Your task to perform on an android device: Open the calendar app, open the side menu, and click the "Day" option Image 0: 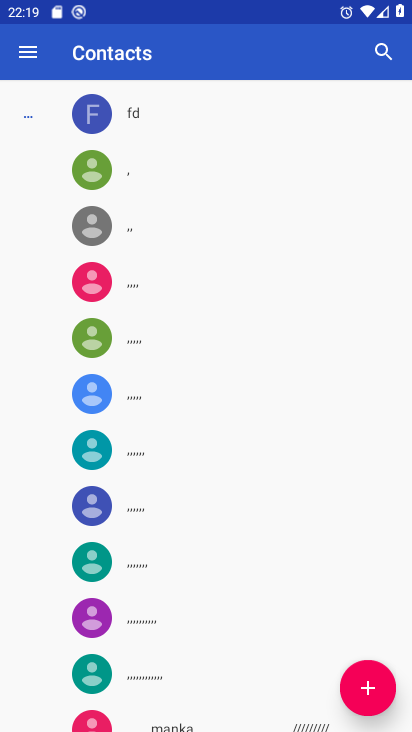
Step 0: press home button
Your task to perform on an android device: Open the calendar app, open the side menu, and click the "Day" option Image 1: 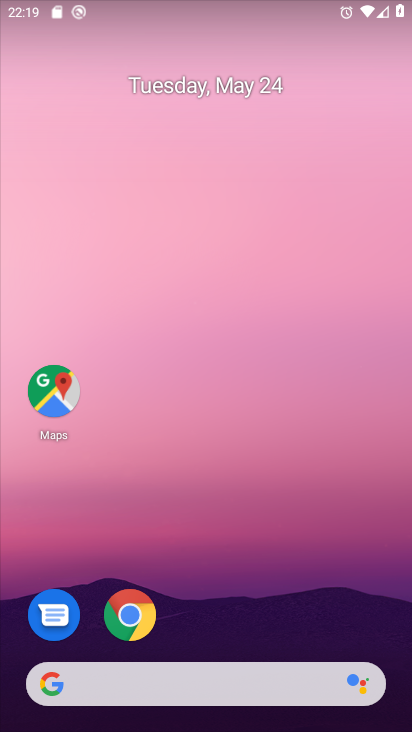
Step 1: click (203, 604)
Your task to perform on an android device: Open the calendar app, open the side menu, and click the "Day" option Image 2: 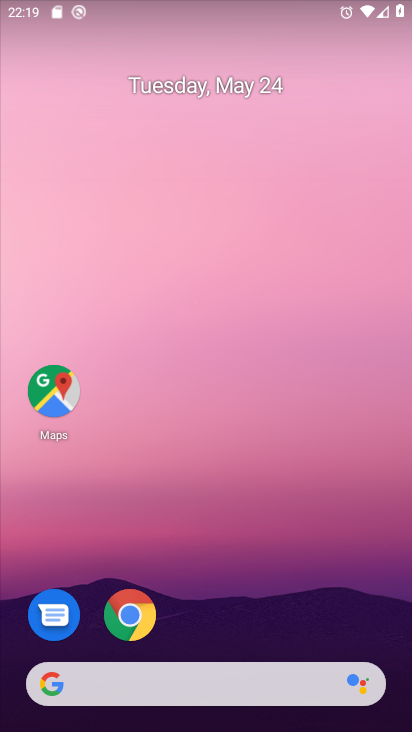
Step 2: drag from (273, 239) to (288, 15)
Your task to perform on an android device: Open the calendar app, open the side menu, and click the "Day" option Image 3: 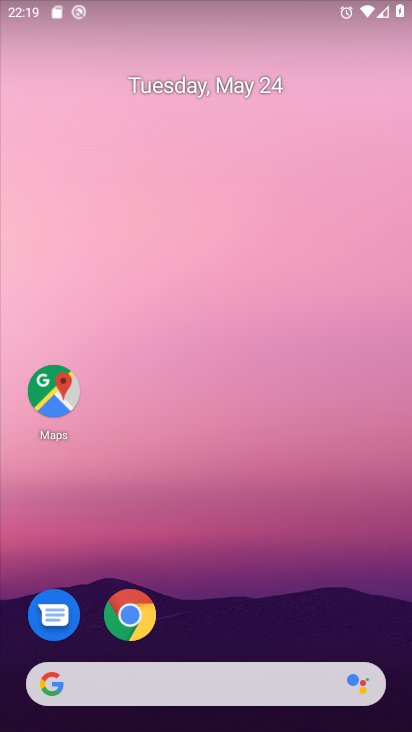
Step 3: drag from (177, 601) to (225, 178)
Your task to perform on an android device: Open the calendar app, open the side menu, and click the "Day" option Image 4: 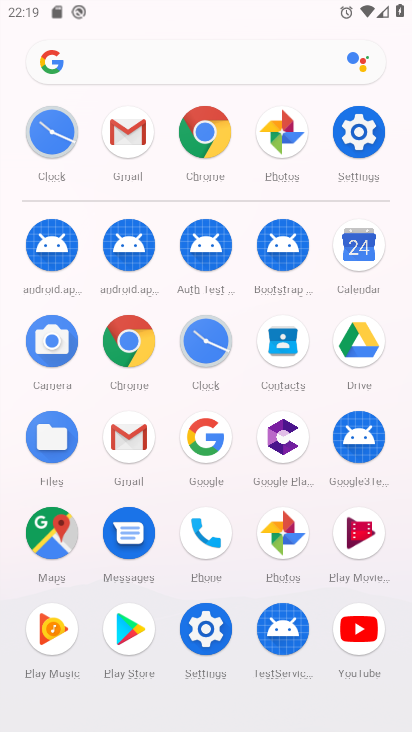
Step 4: click (343, 241)
Your task to perform on an android device: Open the calendar app, open the side menu, and click the "Day" option Image 5: 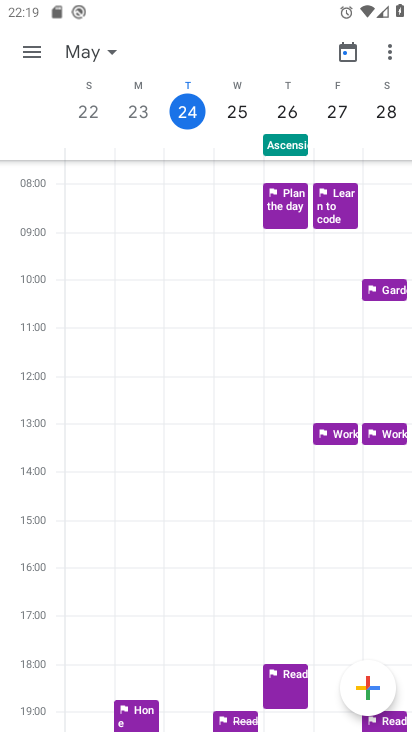
Step 5: click (21, 43)
Your task to perform on an android device: Open the calendar app, open the side menu, and click the "Day" option Image 6: 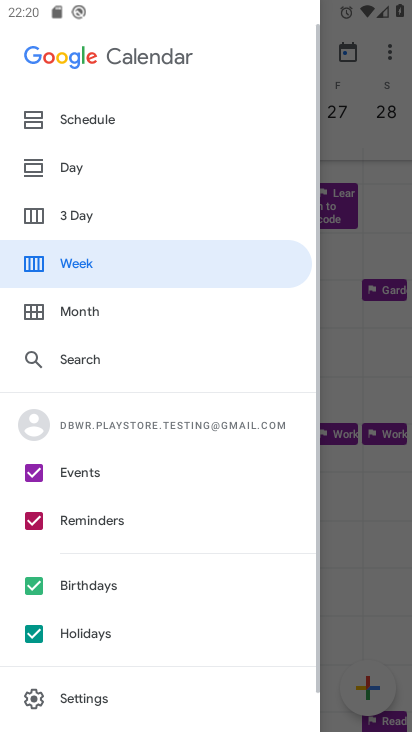
Step 6: click (88, 164)
Your task to perform on an android device: Open the calendar app, open the side menu, and click the "Day" option Image 7: 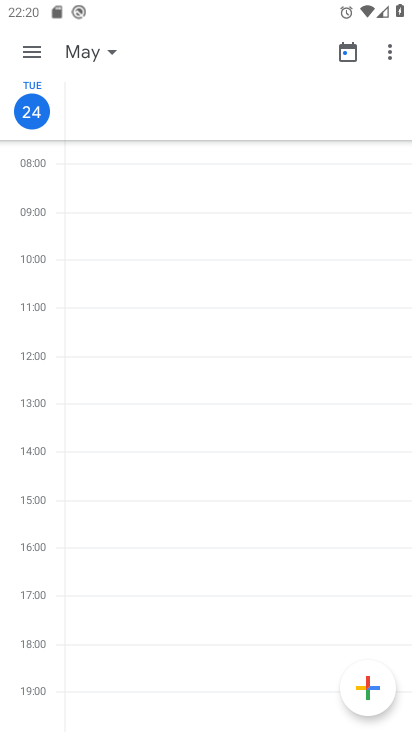
Step 7: task complete